Your task to perform on an android device: turn notification dots off Image 0: 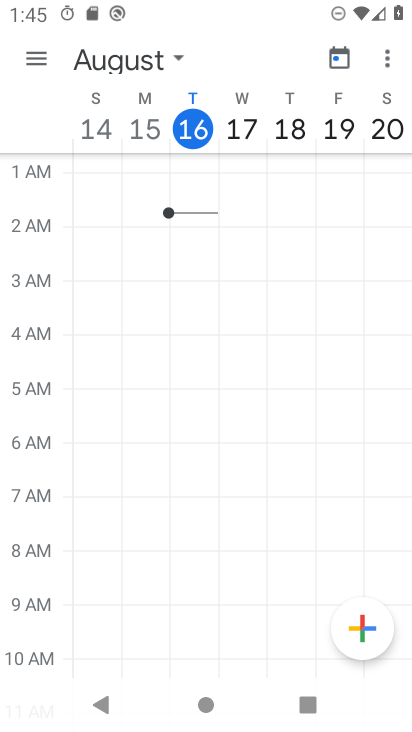
Step 0: press home button
Your task to perform on an android device: turn notification dots off Image 1: 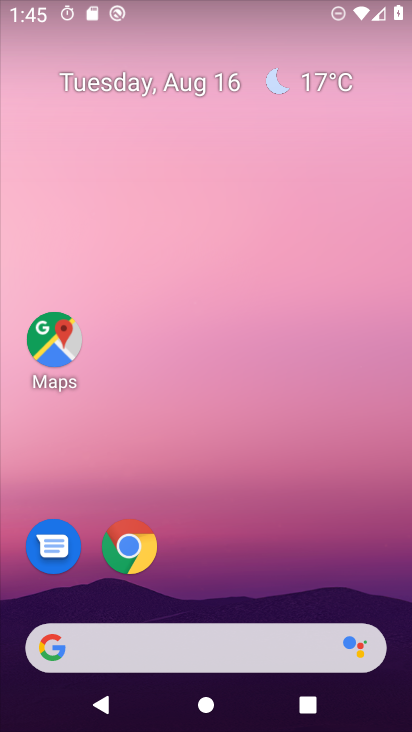
Step 1: drag from (204, 608) to (236, 53)
Your task to perform on an android device: turn notification dots off Image 2: 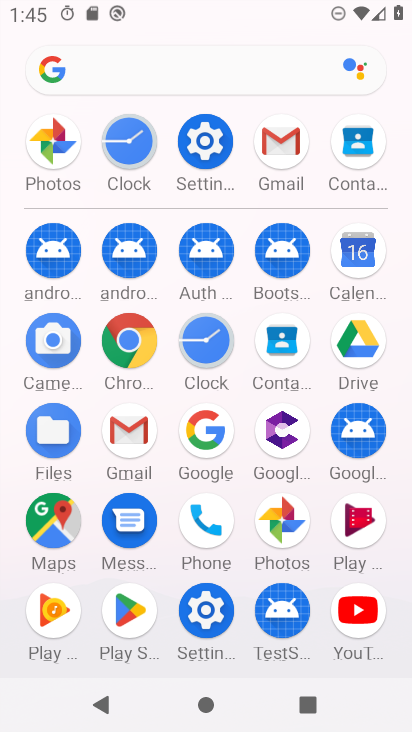
Step 2: click (210, 134)
Your task to perform on an android device: turn notification dots off Image 3: 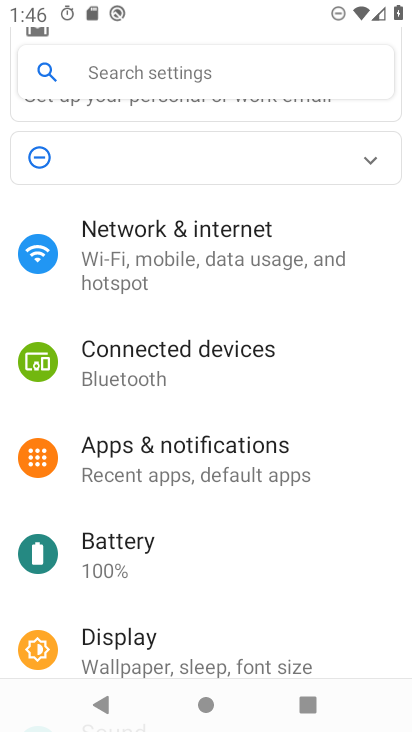
Step 3: click (216, 454)
Your task to perform on an android device: turn notification dots off Image 4: 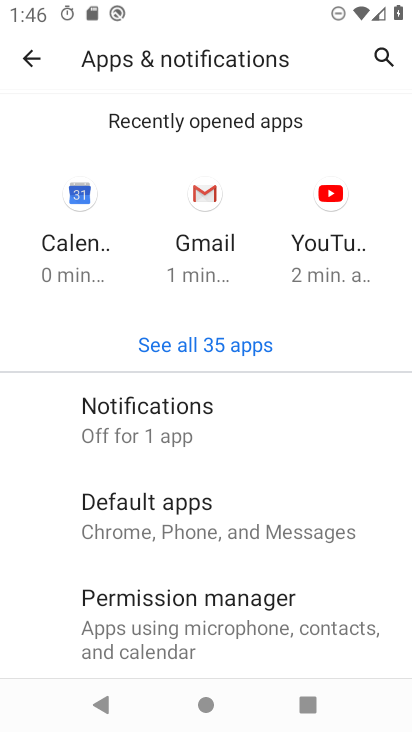
Step 4: click (103, 426)
Your task to perform on an android device: turn notification dots off Image 5: 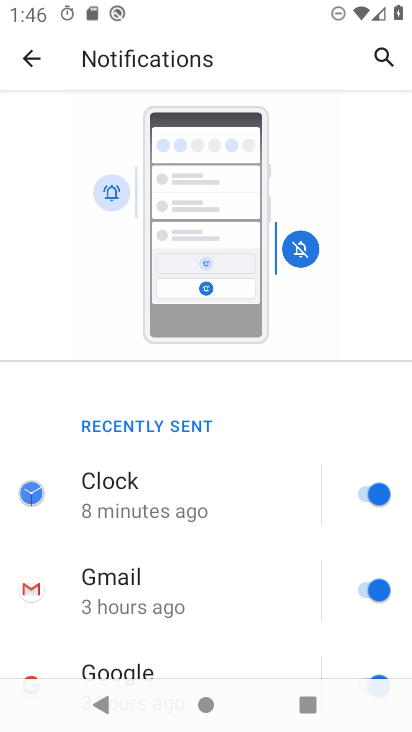
Step 5: drag from (161, 673) to (167, 391)
Your task to perform on an android device: turn notification dots off Image 6: 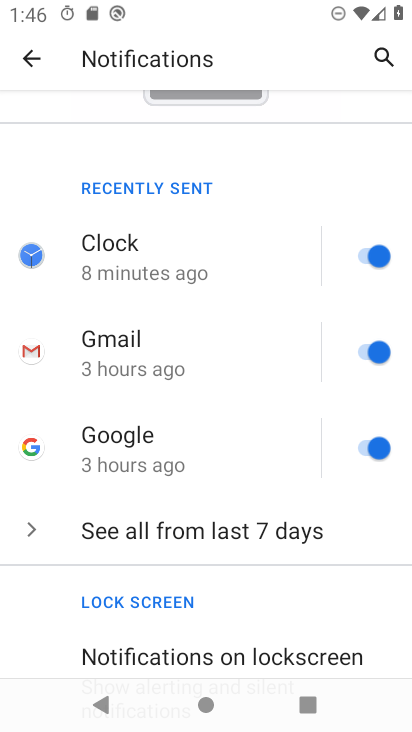
Step 6: drag from (225, 614) to (226, 223)
Your task to perform on an android device: turn notification dots off Image 7: 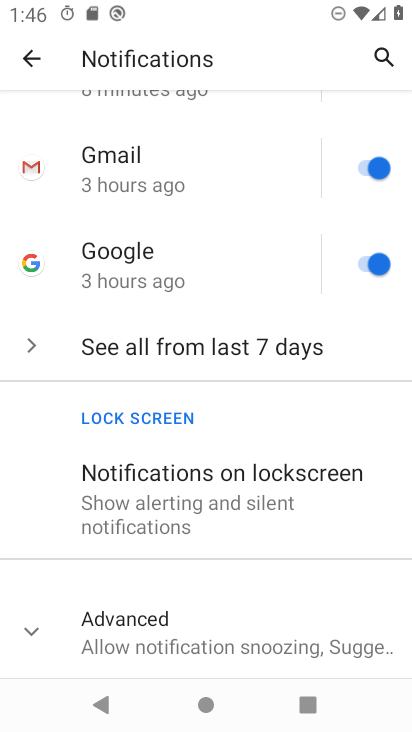
Step 7: click (173, 636)
Your task to perform on an android device: turn notification dots off Image 8: 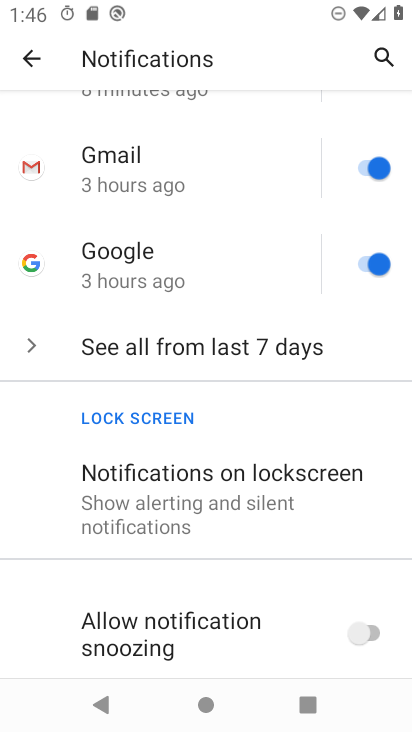
Step 8: task complete